Your task to perform on an android device: Go to Amazon Image 0: 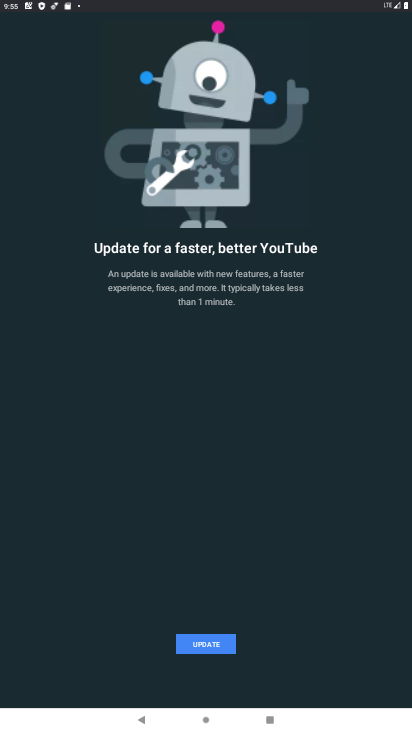
Step 0: press home button
Your task to perform on an android device: Go to Amazon Image 1: 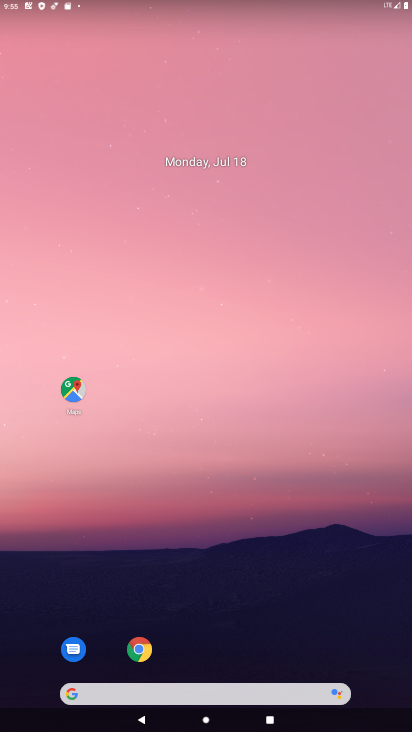
Step 1: drag from (248, 691) to (202, 10)
Your task to perform on an android device: Go to Amazon Image 2: 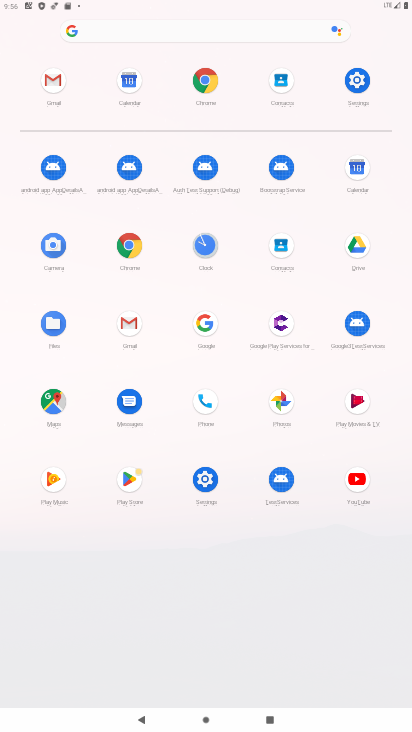
Step 2: click (202, 78)
Your task to perform on an android device: Go to Amazon Image 3: 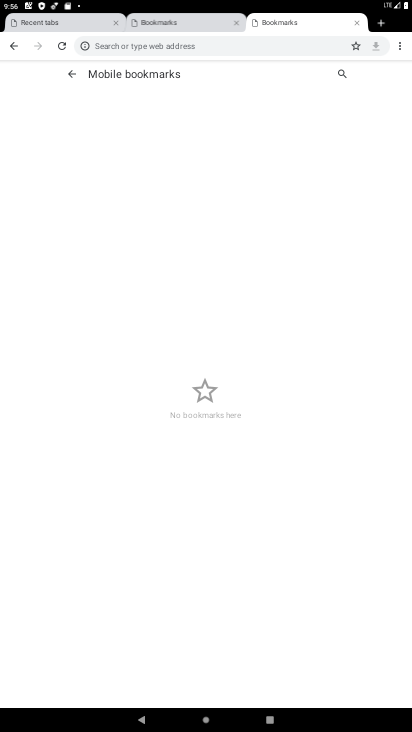
Step 3: click (401, 38)
Your task to perform on an android device: Go to Amazon Image 4: 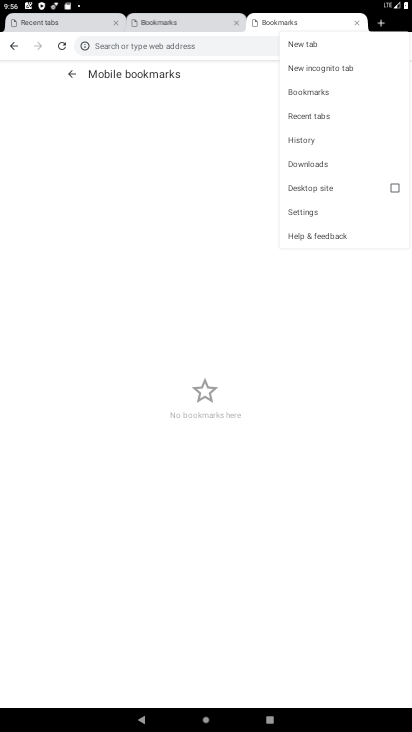
Step 4: click (341, 42)
Your task to perform on an android device: Go to Amazon Image 5: 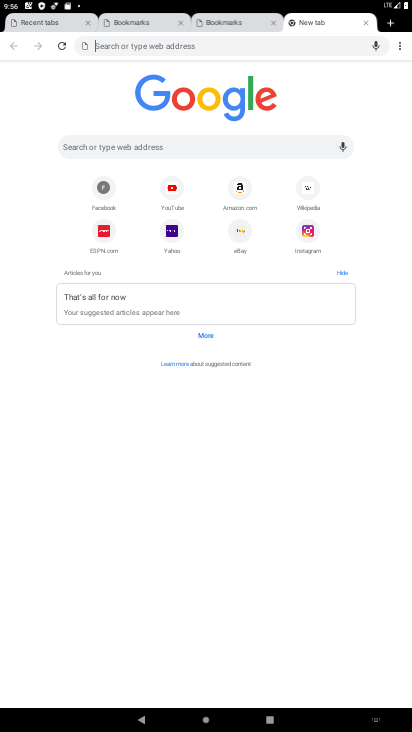
Step 5: click (241, 189)
Your task to perform on an android device: Go to Amazon Image 6: 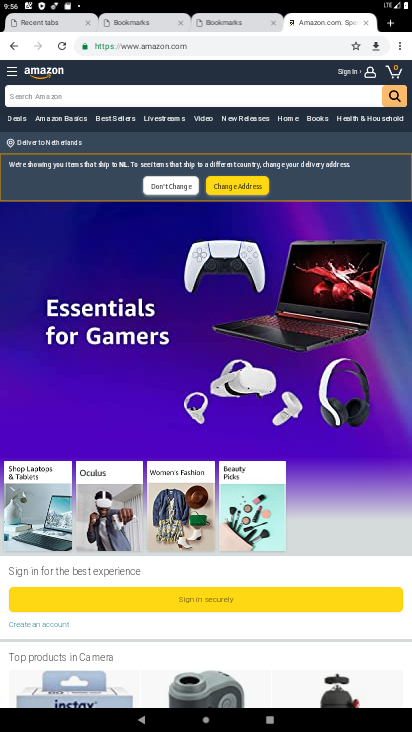
Step 6: task complete